Your task to perform on an android device: Go to Yahoo.com Image 0: 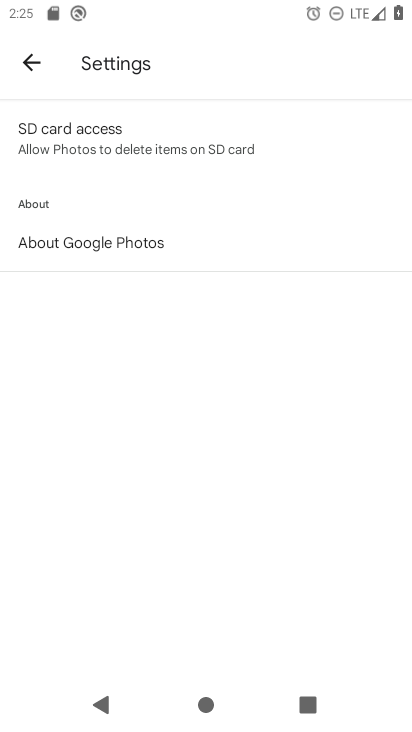
Step 0: press home button
Your task to perform on an android device: Go to Yahoo.com Image 1: 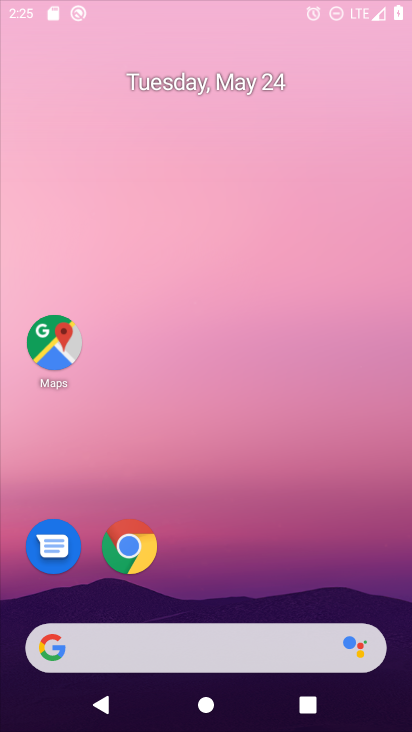
Step 1: click (201, 50)
Your task to perform on an android device: Go to Yahoo.com Image 2: 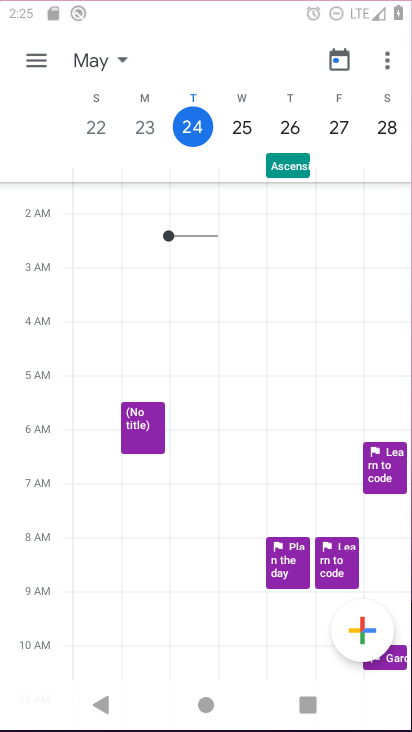
Step 2: drag from (247, 637) to (265, 102)
Your task to perform on an android device: Go to Yahoo.com Image 3: 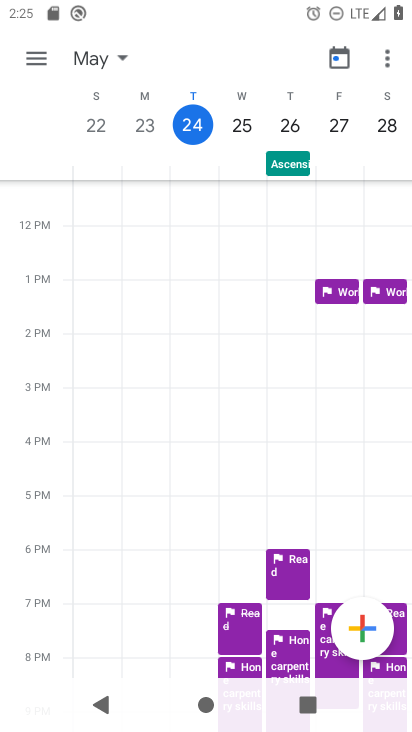
Step 3: press home button
Your task to perform on an android device: Go to Yahoo.com Image 4: 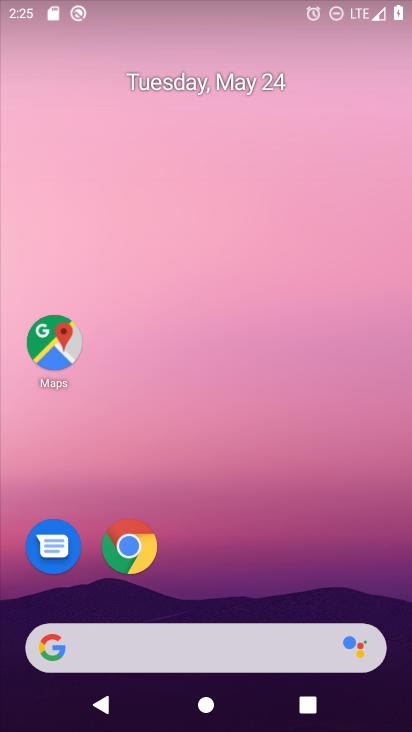
Step 4: drag from (192, 601) to (237, 11)
Your task to perform on an android device: Go to Yahoo.com Image 5: 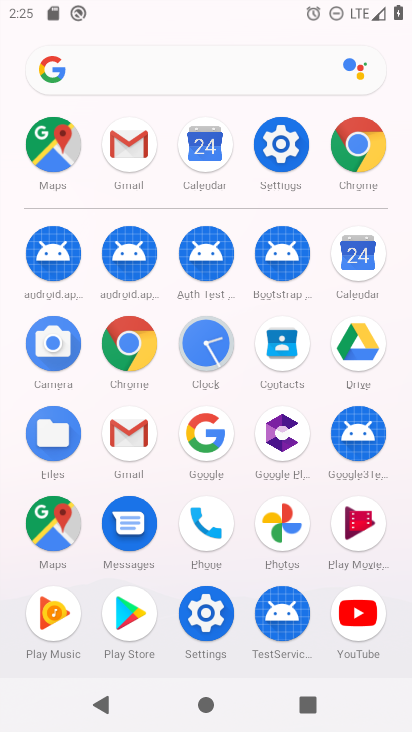
Step 5: click (292, 132)
Your task to perform on an android device: Go to Yahoo.com Image 6: 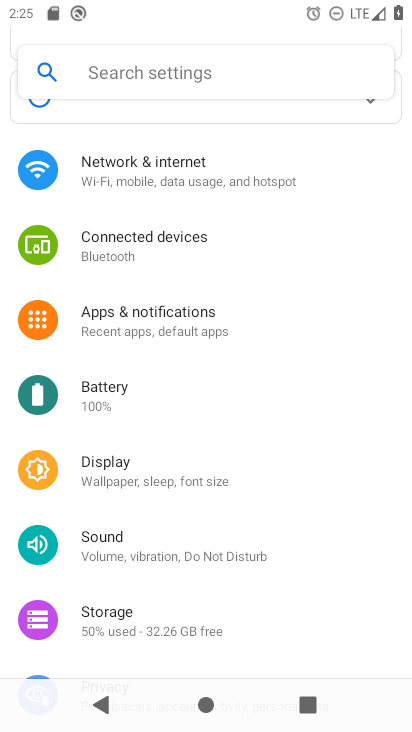
Step 6: press home button
Your task to perform on an android device: Go to Yahoo.com Image 7: 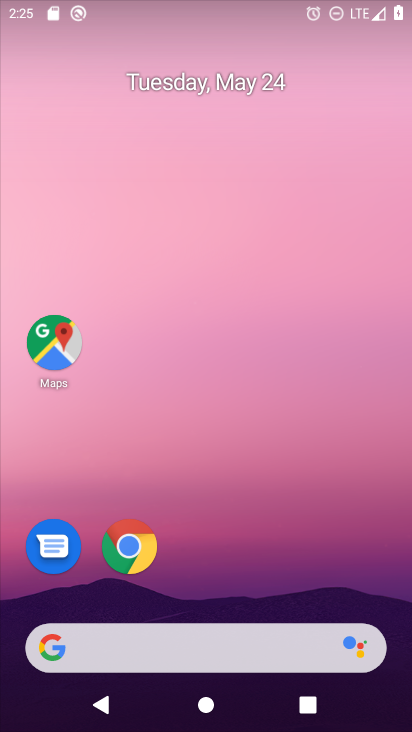
Step 7: drag from (315, 635) to (326, 100)
Your task to perform on an android device: Go to Yahoo.com Image 8: 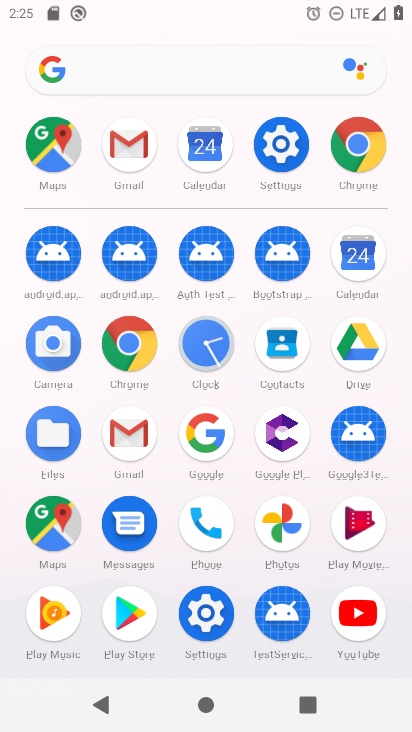
Step 8: click (161, 328)
Your task to perform on an android device: Go to Yahoo.com Image 9: 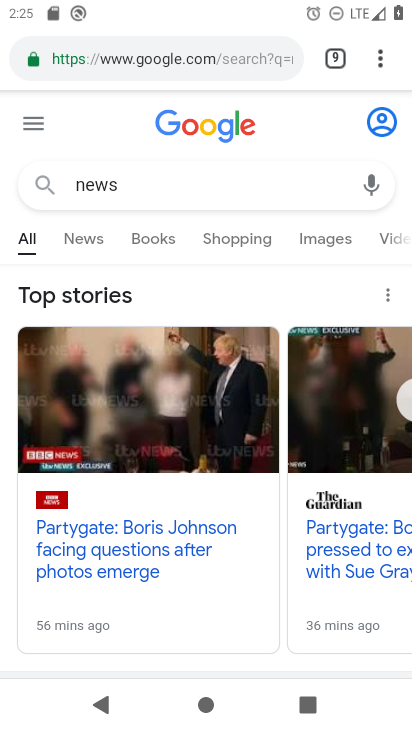
Step 9: click (377, 63)
Your task to perform on an android device: Go to Yahoo.com Image 10: 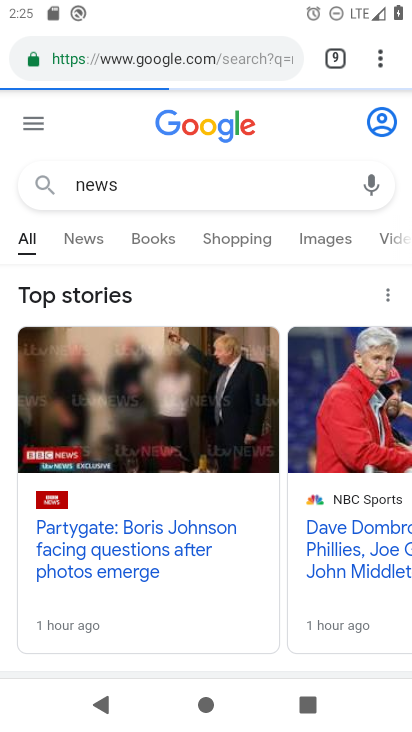
Step 10: drag from (376, 49) to (273, 94)
Your task to perform on an android device: Go to Yahoo.com Image 11: 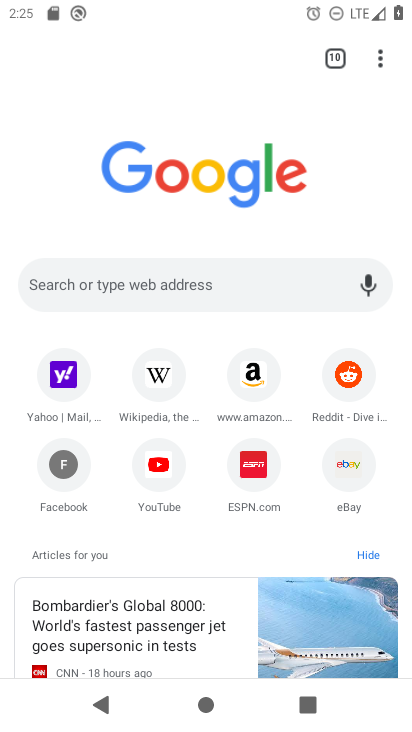
Step 11: click (51, 375)
Your task to perform on an android device: Go to Yahoo.com Image 12: 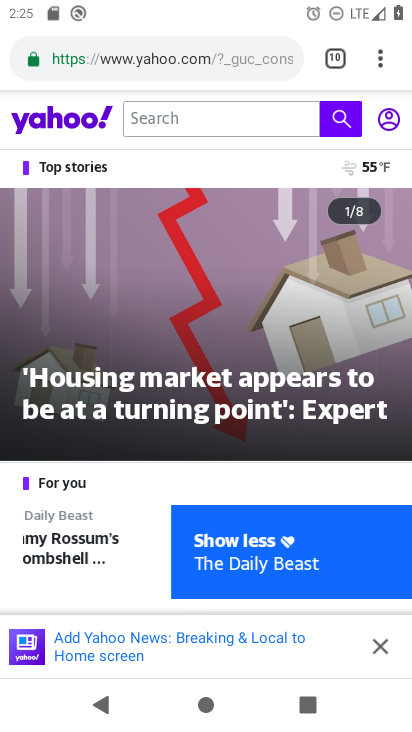
Step 12: task complete